Your task to perform on an android device: turn on wifi Image 0: 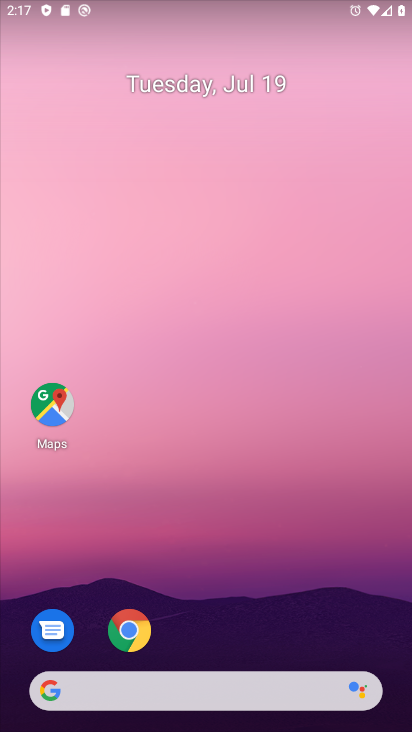
Step 0: drag from (244, 601) to (289, 0)
Your task to perform on an android device: turn on wifi Image 1: 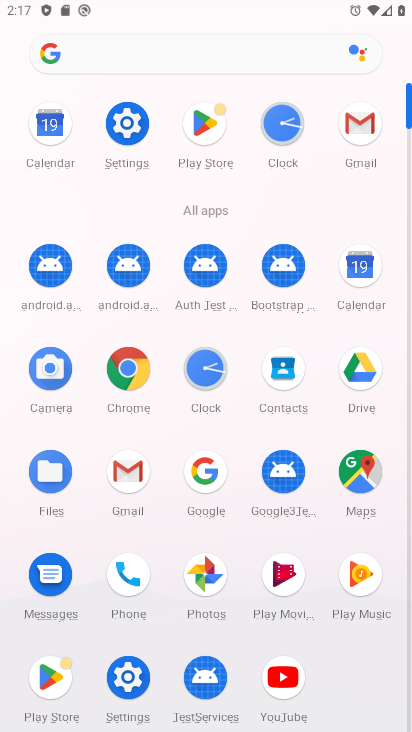
Step 1: click (131, 123)
Your task to perform on an android device: turn on wifi Image 2: 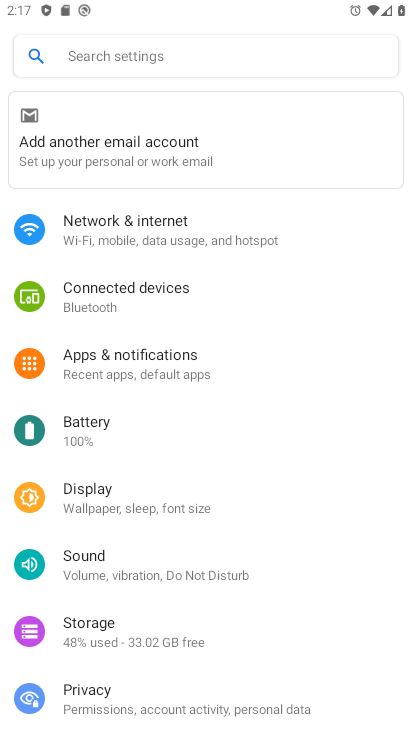
Step 2: click (216, 236)
Your task to perform on an android device: turn on wifi Image 3: 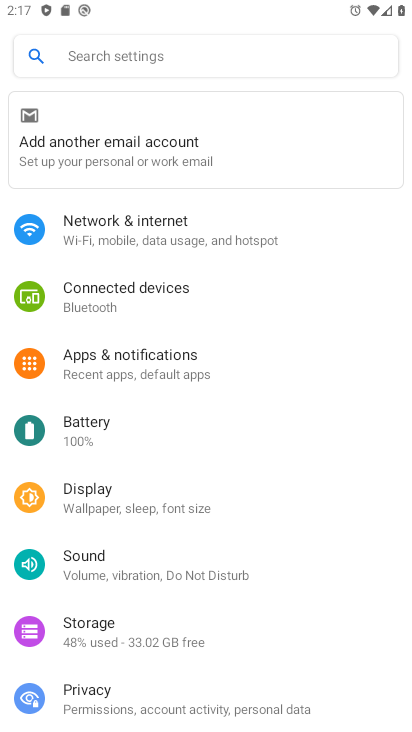
Step 3: click (161, 237)
Your task to perform on an android device: turn on wifi Image 4: 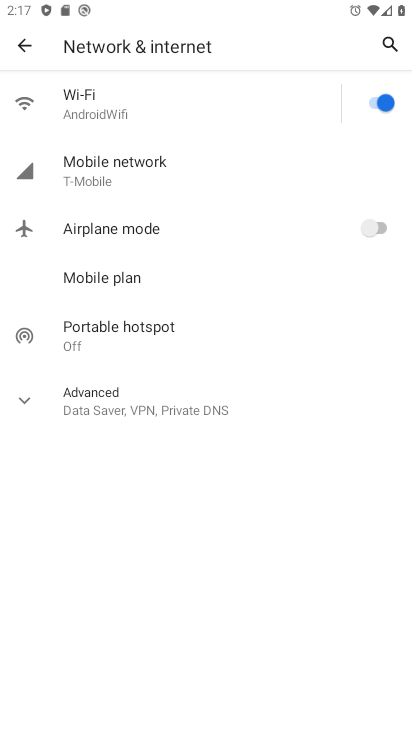
Step 4: task complete